Your task to perform on an android device: Open my contact list Image 0: 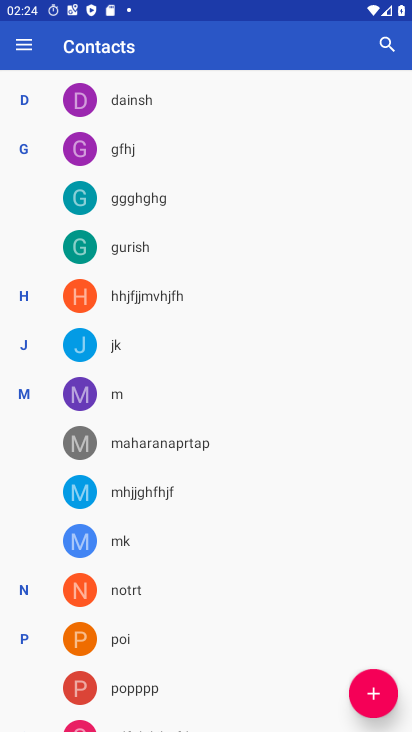
Step 0: task complete